Your task to perform on an android device: turn off smart reply in the gmail app Image 0: 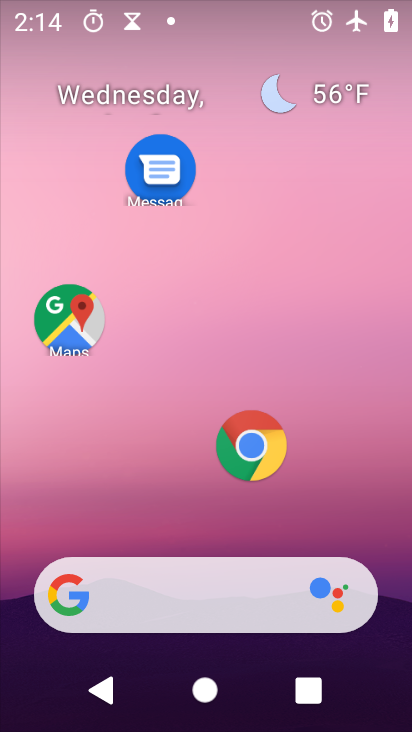
Step 0: drag from (208, 508) to (342, 115)
Your task to perform on an android device: turn off smart reply in the gmail app Image 1: 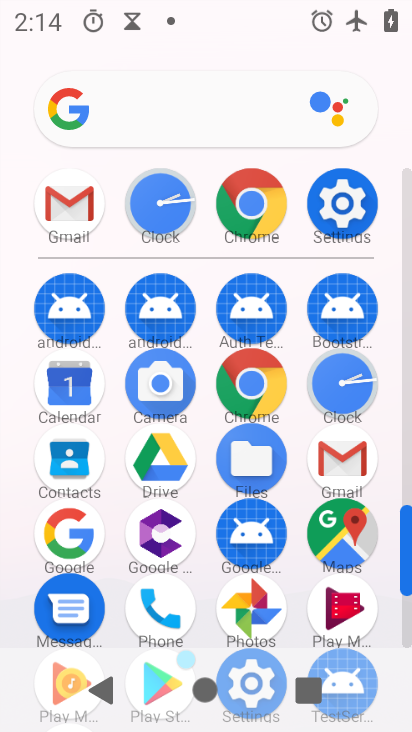
Step 1: click (336, 474)
Your task to perform on an android device: turn off smart reply in the gmail app Image 2: 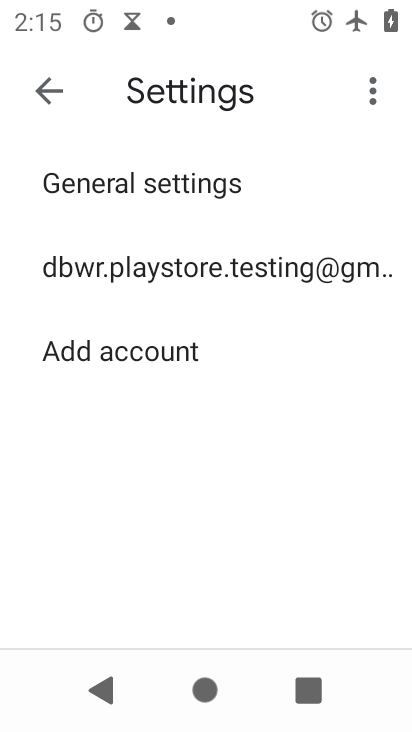
Step 2: press back button
Your task to perform on an android device: turn off smart reply in the gmail app Image 3: 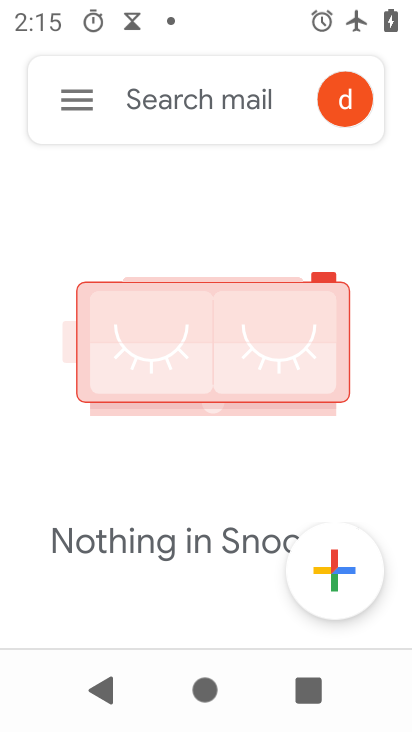
Step 3: click (83, 108)
Your task to perform on an android device: turn off smart reply in the gmail app Image 4: 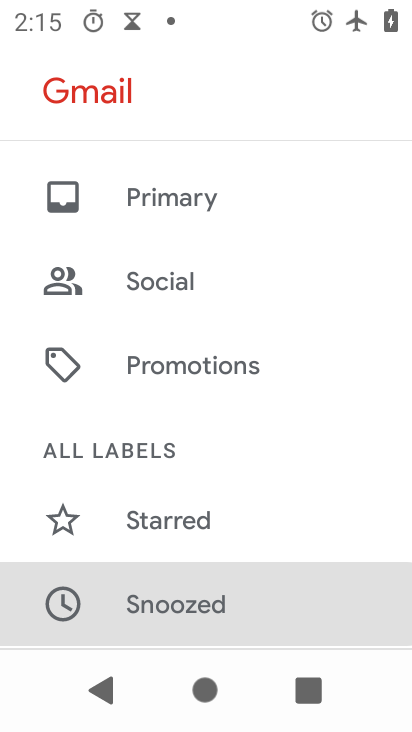
Step 4: drag from (81, 524) to (241, 2)
Your task to perform on an android device: turn off smart reply in the gmail app Image 5: 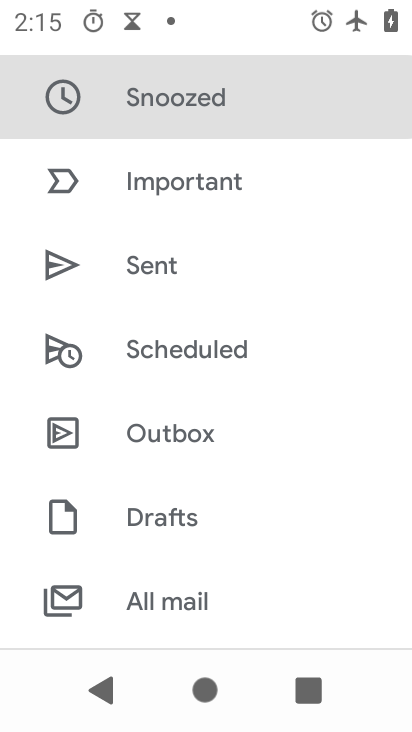
Step 5: drag from (132, 565) to (211, 44)
Your task to perform on an android device: turn off smart reply in the gmail app Image 6: 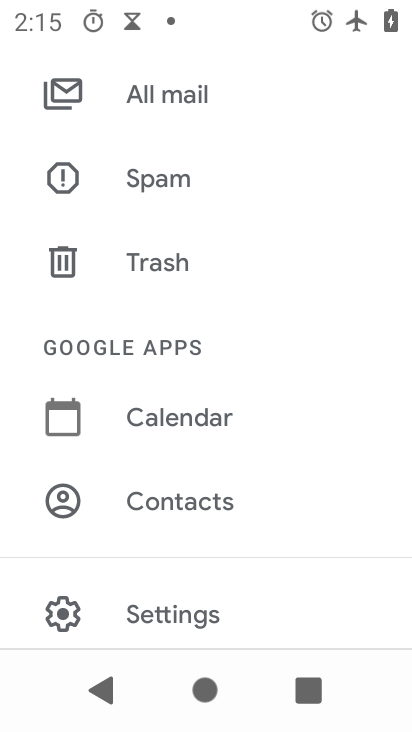
Step 6: click (193, 610)
Your task to perform on an android device: turn off smart reply in the gmail app Image 7: 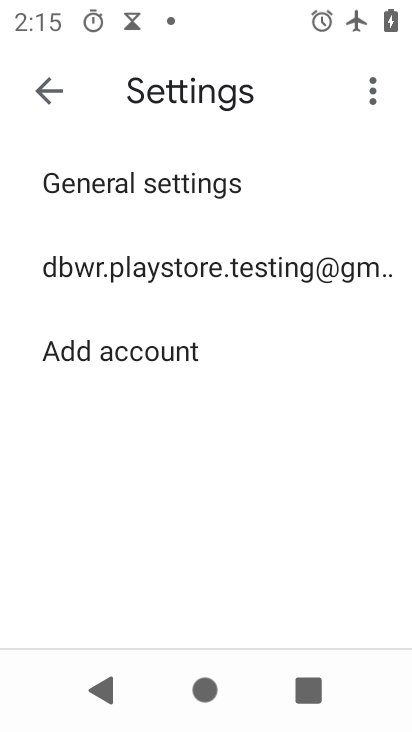
Step 7: drag from (200, 596) to (230, 383)
Your task to perform on an android device: turn off smart reply in the gmail app Image 8: 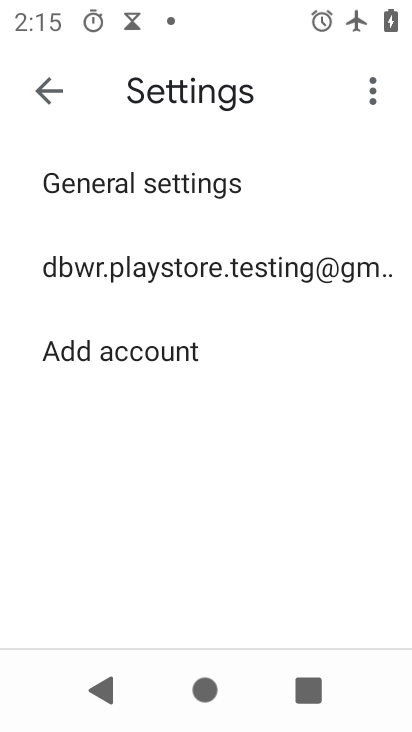
Step 8: click (199, 282)
Your task to perform on an android device: turn off smart reply in the gmail app Image 9: 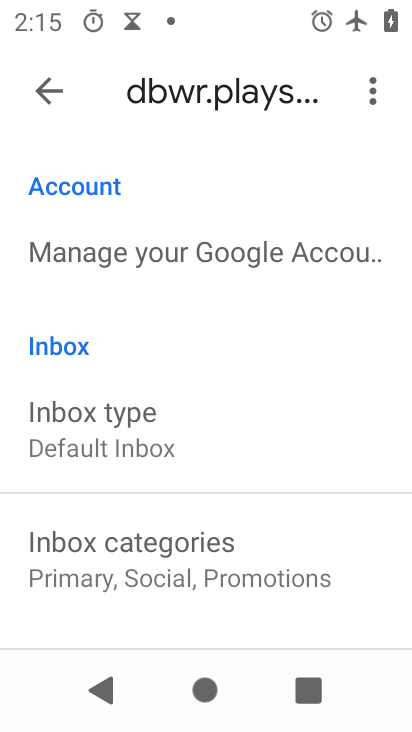
Step 9: drag from (113, 548) to (235, 118)
Your task to perform on an android device: turn off smart reply in the gmail app Image 10: 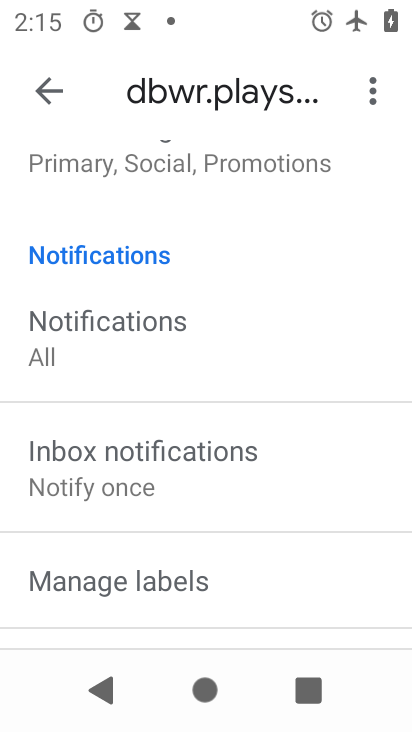
Step 10: drag from (182, 535) to (253, 93)
Your task to perform on an android device: turn off smart reply in the gmail app Image 11: 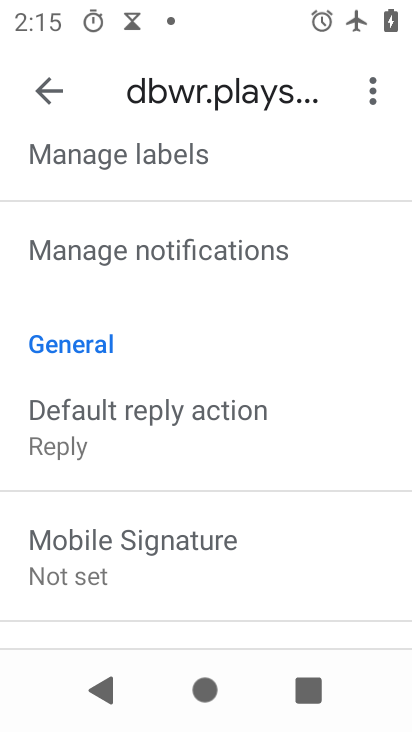
Step 11: drag from (203, 519) to (257, 109)
Your task to perform on an android device: turn off smart reply in the gmail app Image 12: 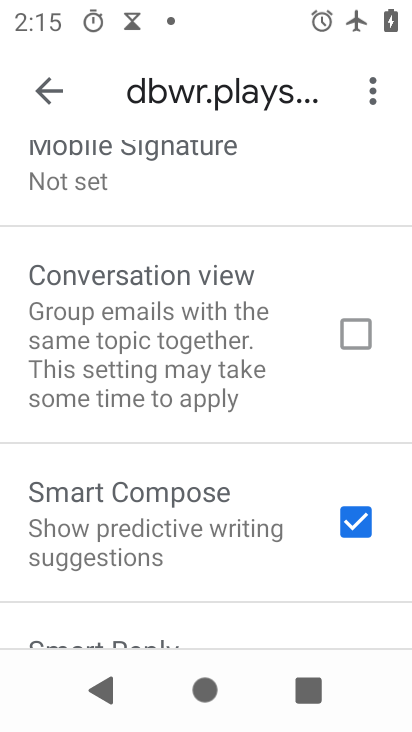
Step 12: drag from (215, 525) to (270, 0)
Your task to perform on an android device: turn off smart reply in the gmail app Image 13: 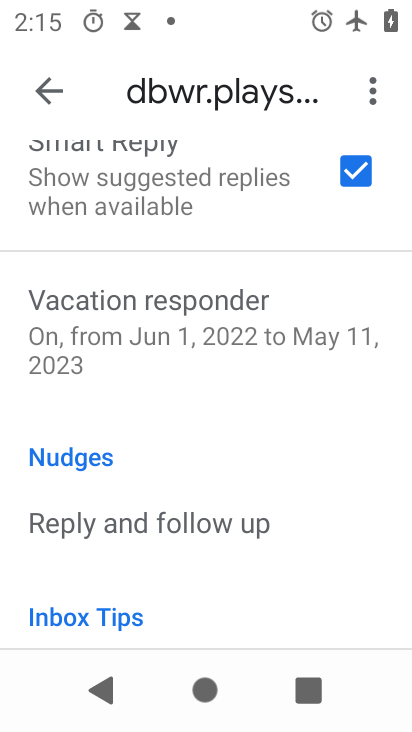
Step 13: click (355, 185)
Your task to perform on an android device: turn off smart reply in the gmail app Image 14: 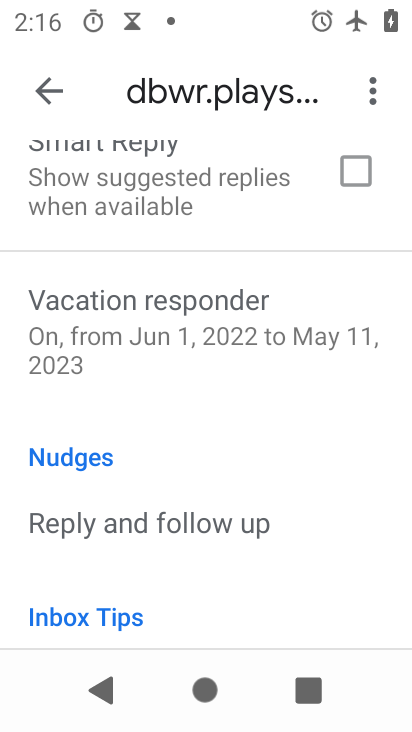
Step 14: task complete